Your task to perform on an android device: empty trash in google photos Image 0: 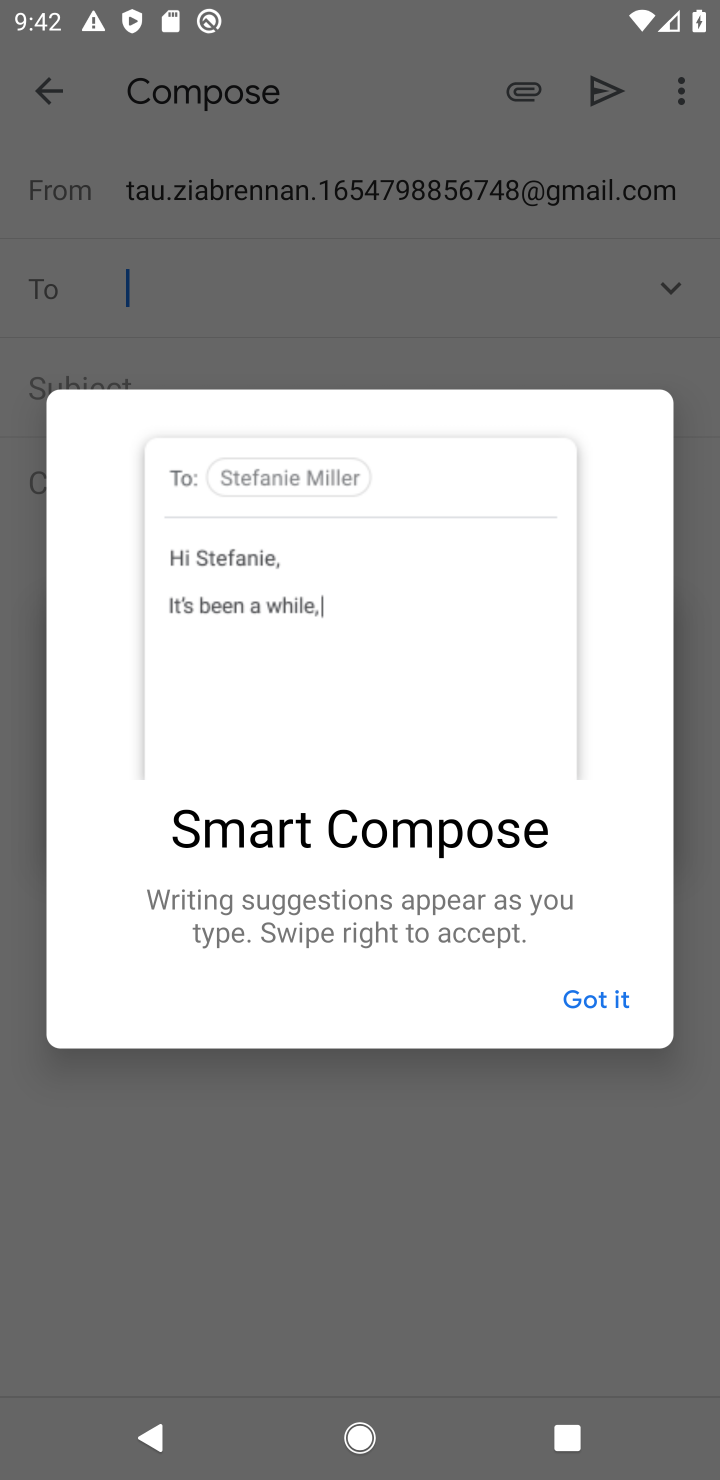
Step 0: press home button
Your task to perform on an android device: empty trash in google photos Image 1: 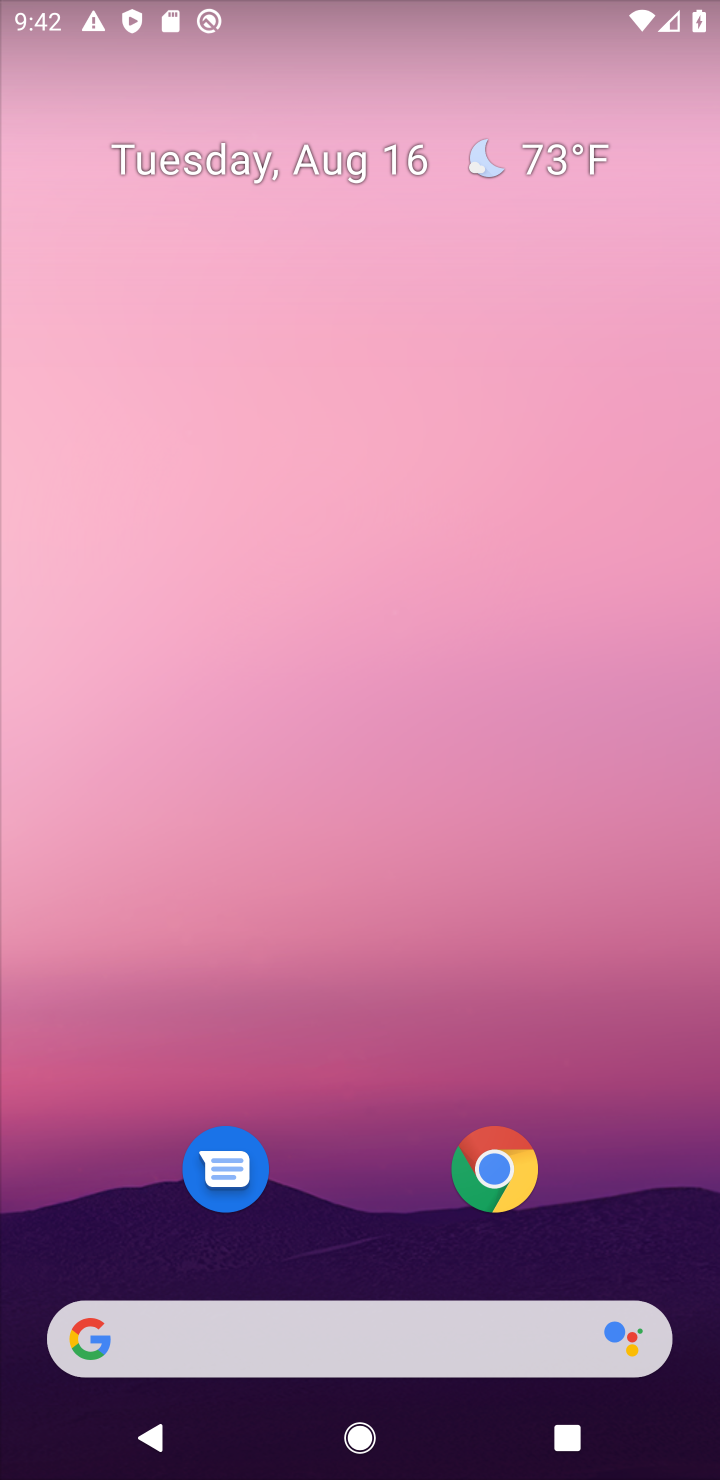
Step 1: click (338, 1213)
Your task to perform on an android device: empty trash in google photos Image 2: 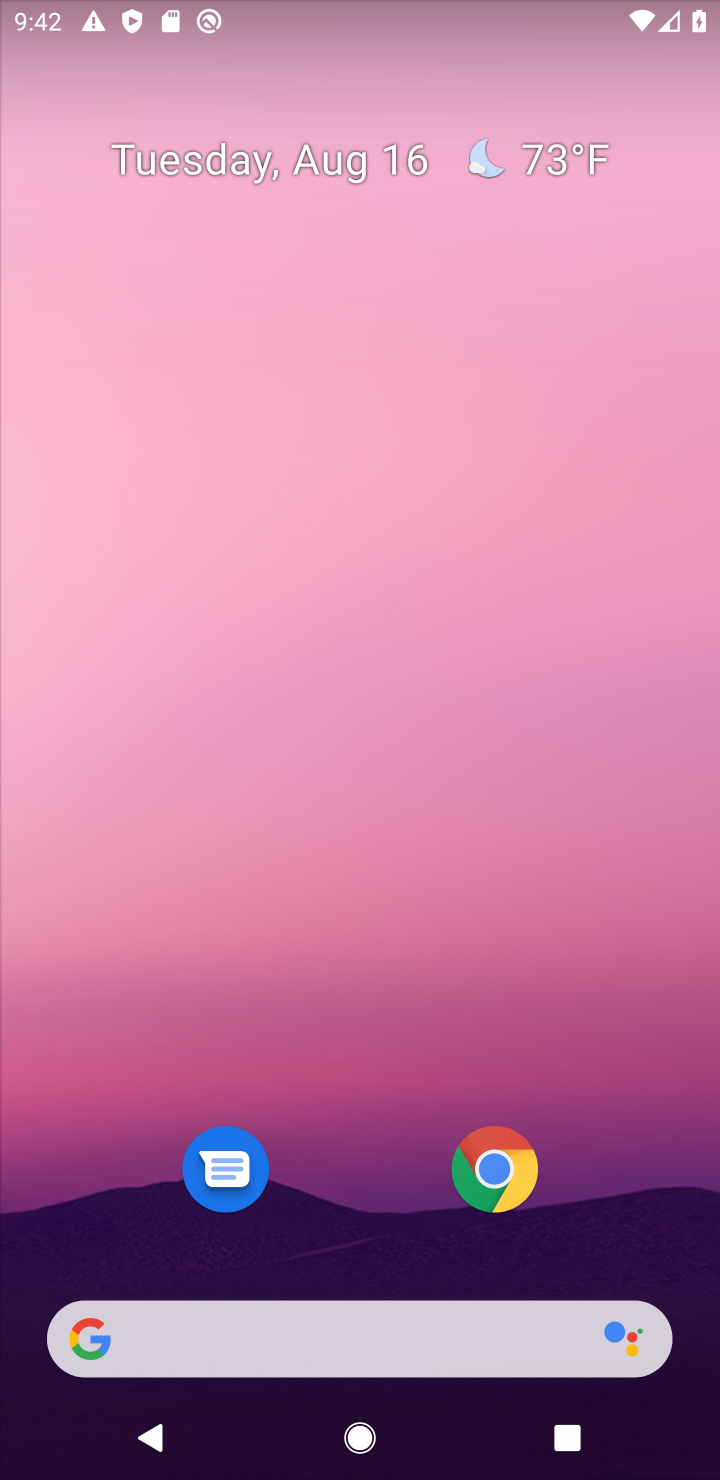
Step 2: drag from (318, 1192) to (346, 5)
Your task to perform on an android device: empty trash in google photos Image 3: 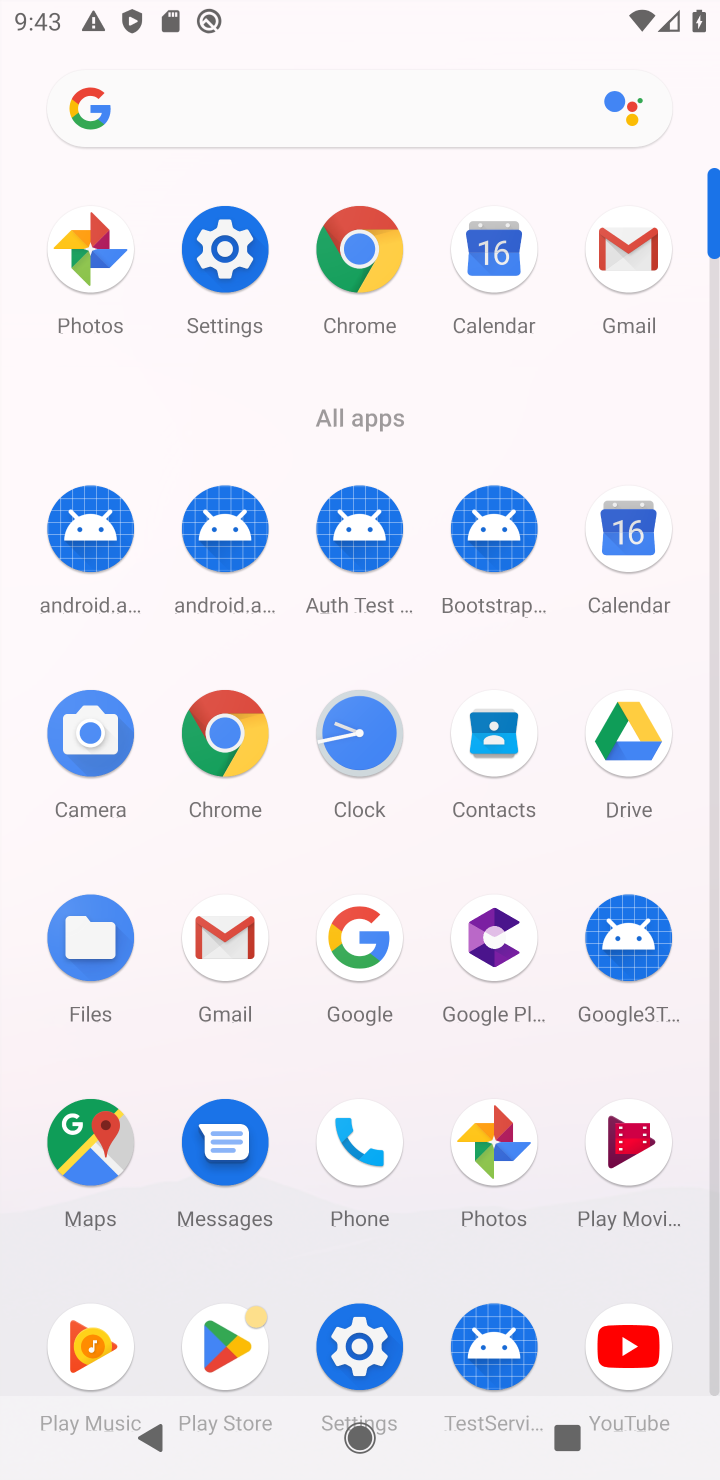
Step 3: click (489, 1152)
Your task to perform on an android device: empty trash in google photos Image 4: 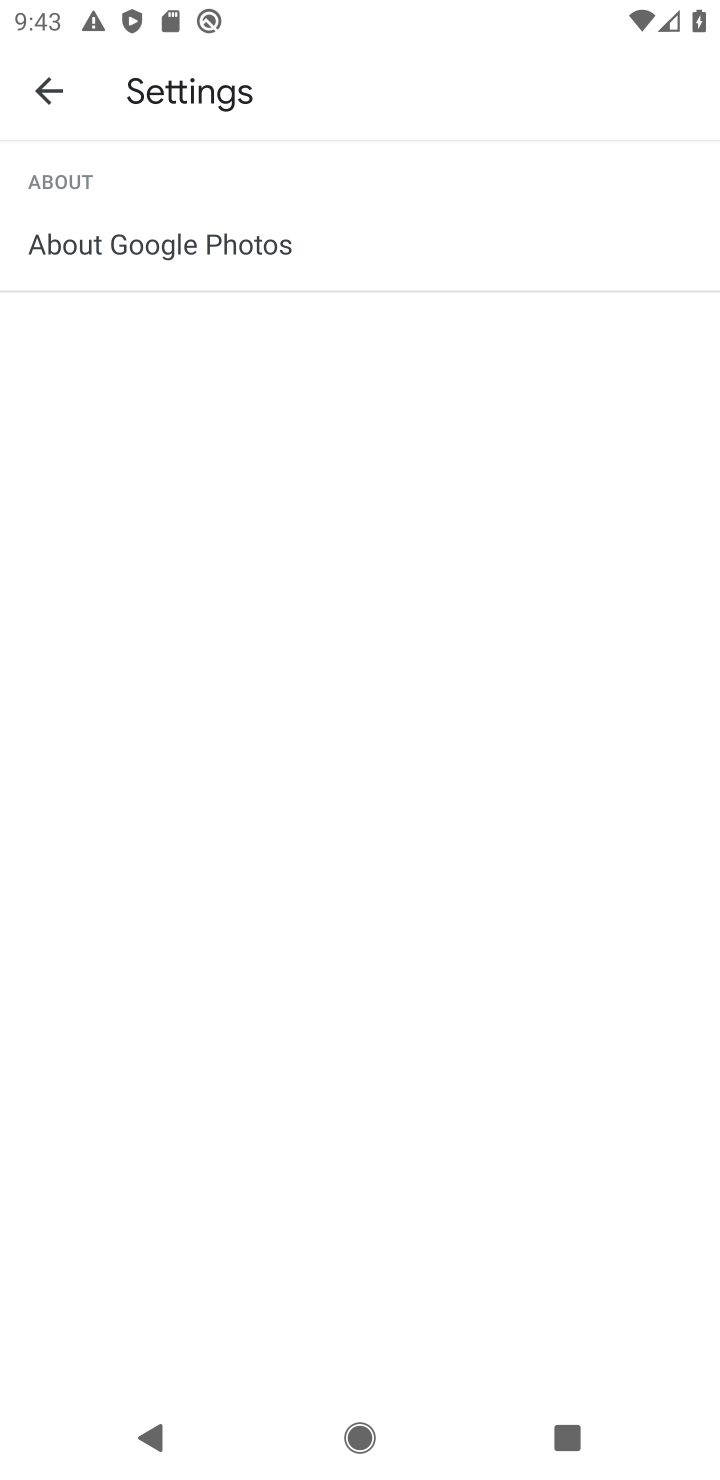
Step 4: click (39, 79)
Your task to perform on an android device: empty trash in google photos Image 5: 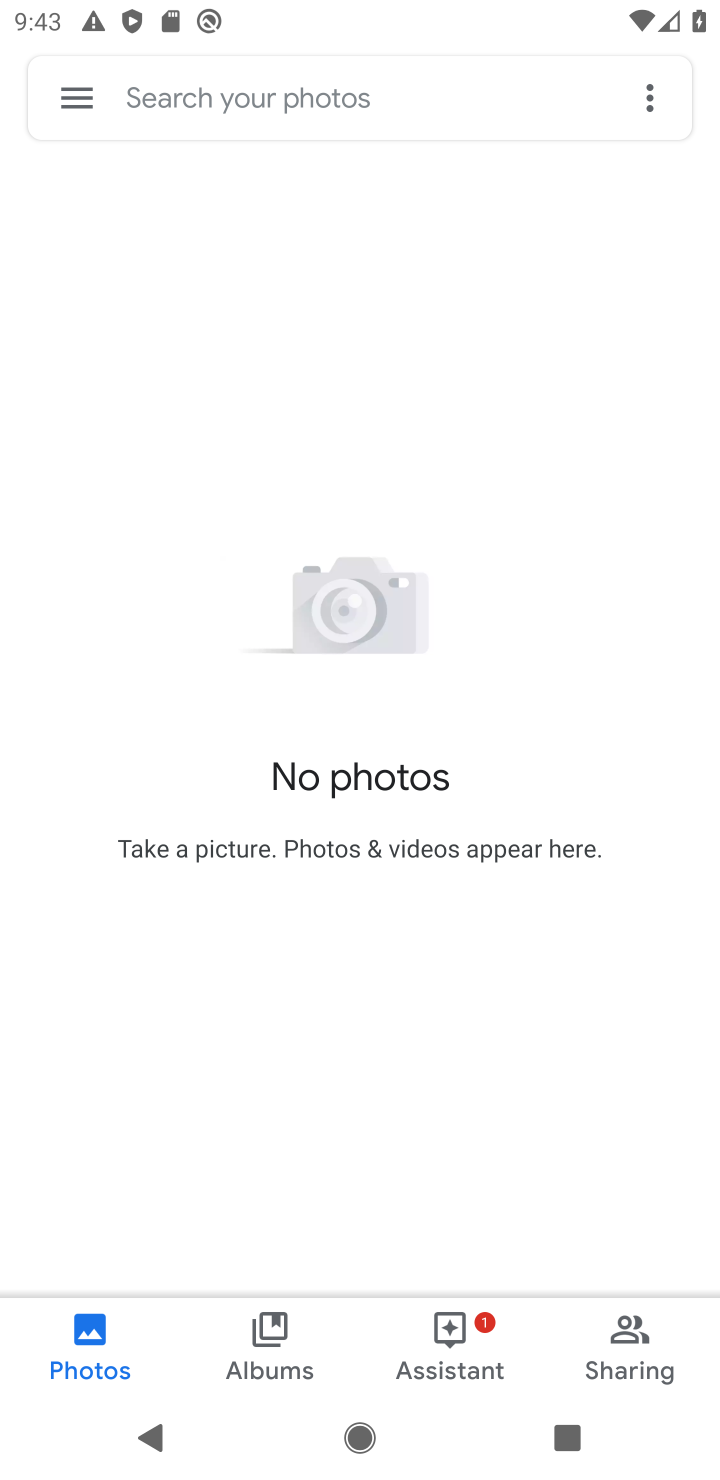
Step 5: click (82, 101)
Your task to perform on an android device: empty trash in google photos Image 6: 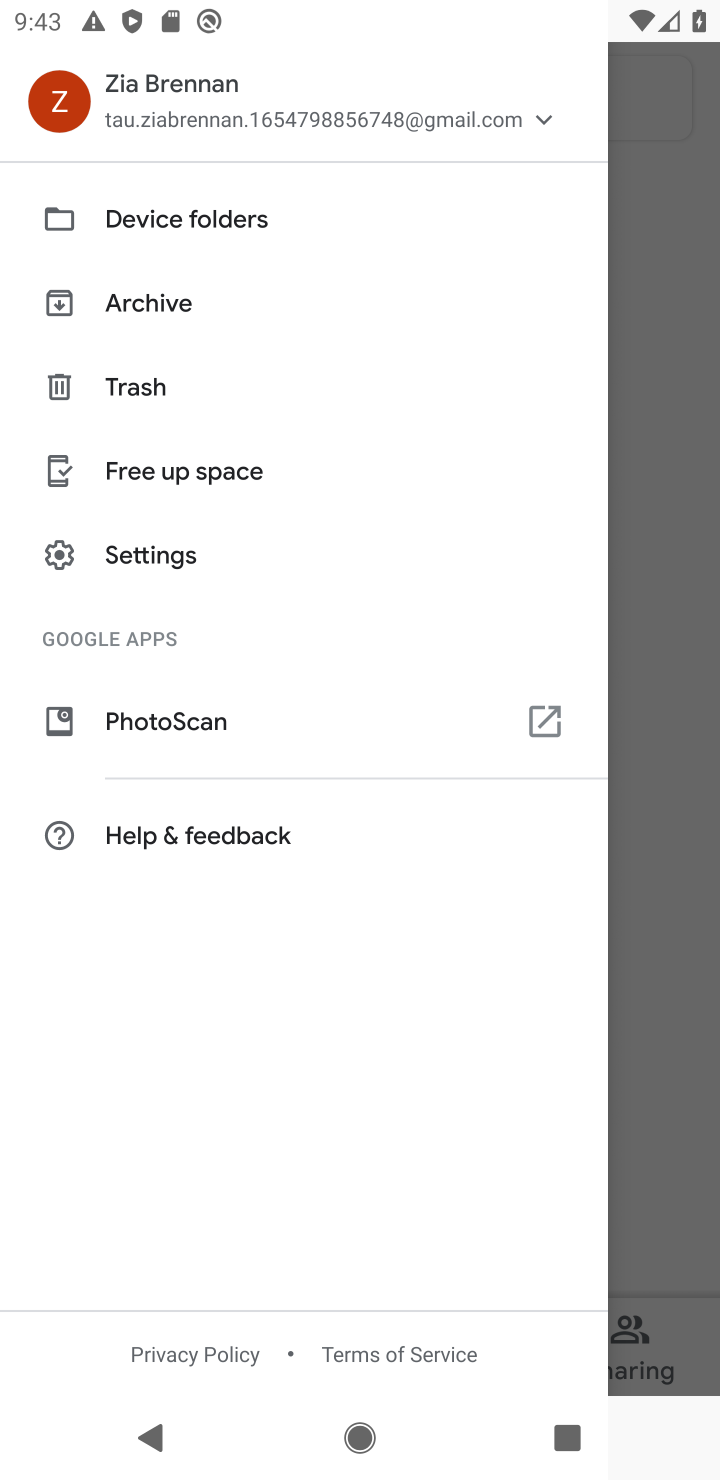
Step 6: click (129, 384)
Your task to perform on an android device: empty trash in google photos Image 7: 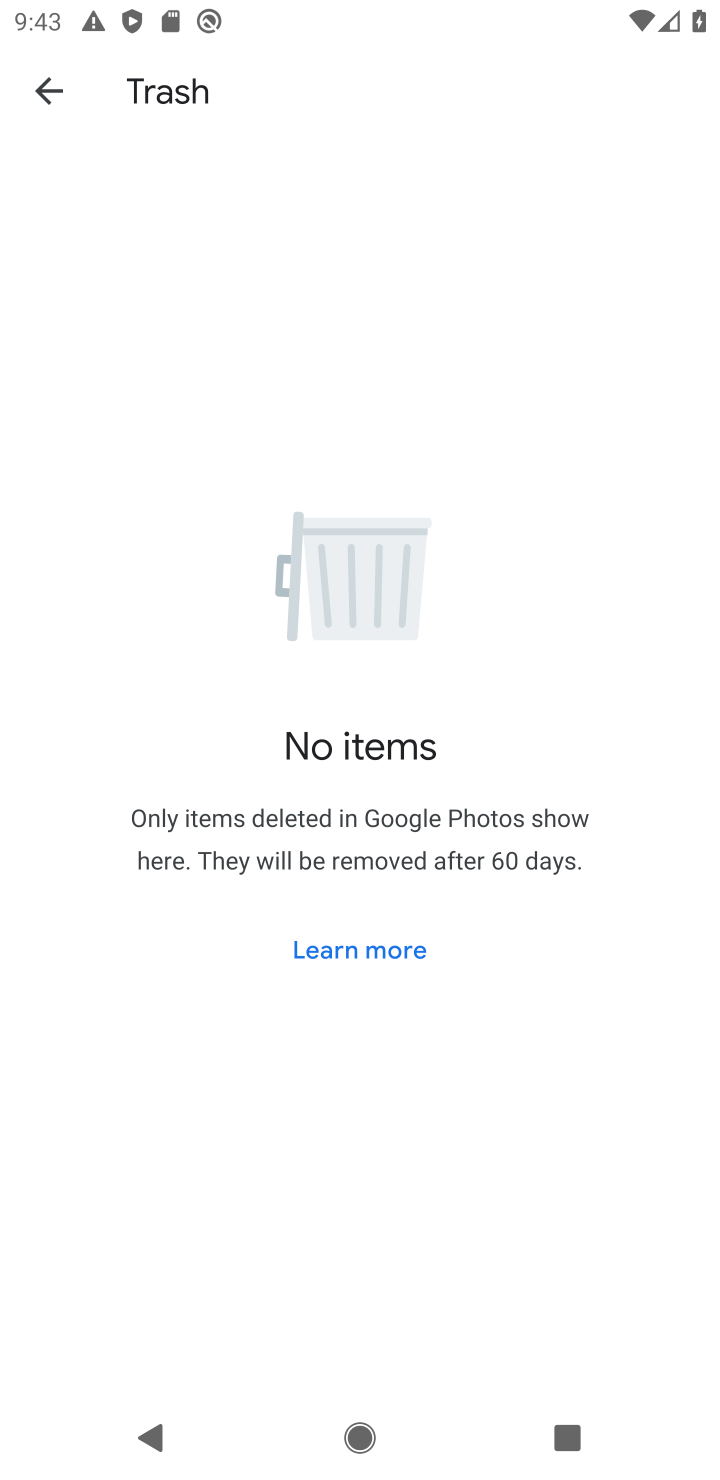
Step 7: task complete